Your task to perform on an android device: Open the map Image 0: 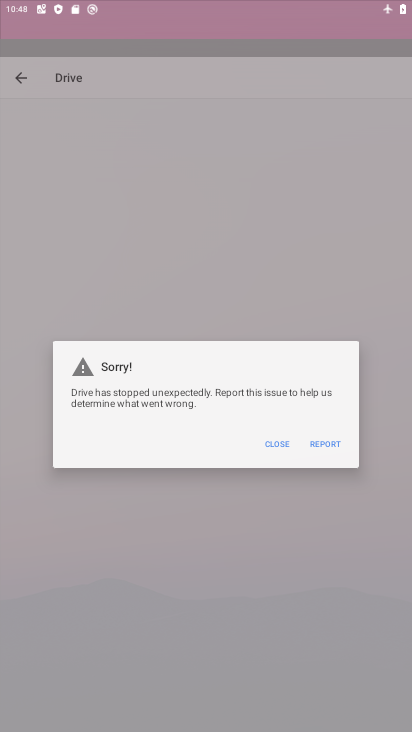
Step 0: click (366, 68)
Your task to perform on an android device: Open the map Image 1: 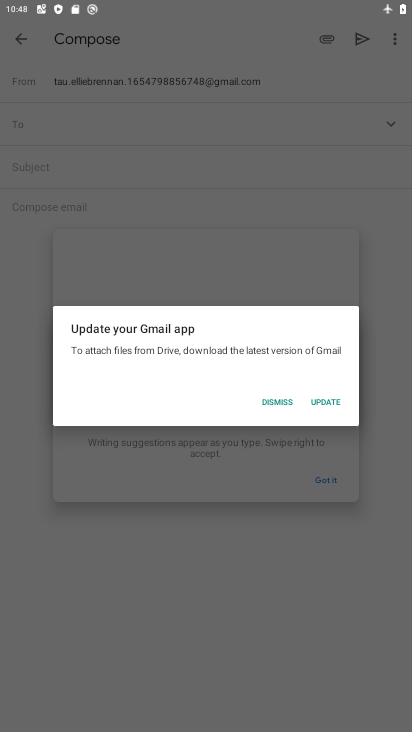
Step 1: press home button
Your task to perform on an android device: Open the map Image 2: 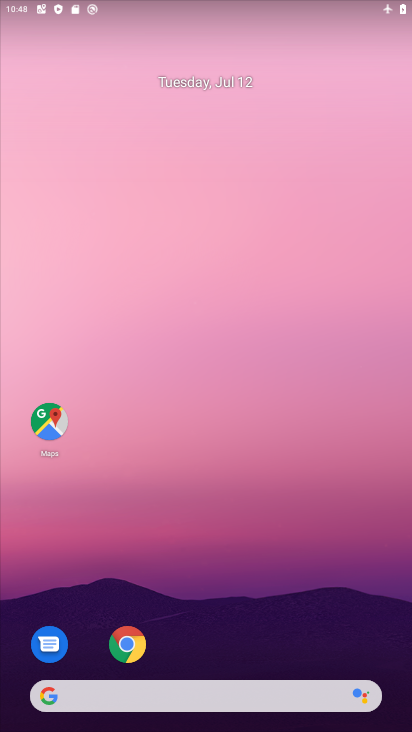
Step 2: drag from (339, 508) to (411, 96)
Your task to perform on an android device: Open the map Image 3: 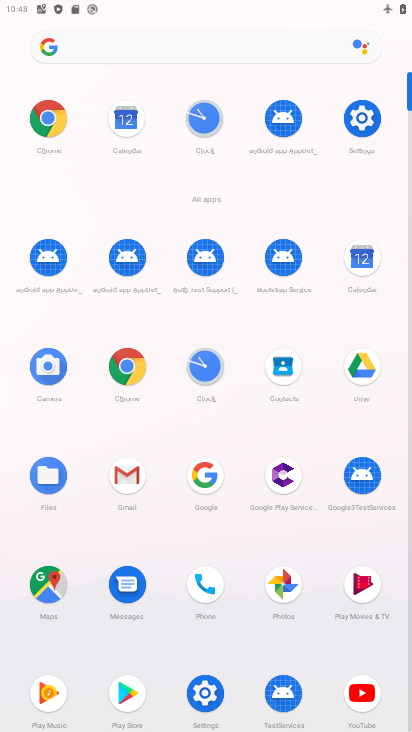
Step 3: click (42, 594)
Your task to perform on an android device: Open the map Image 4: 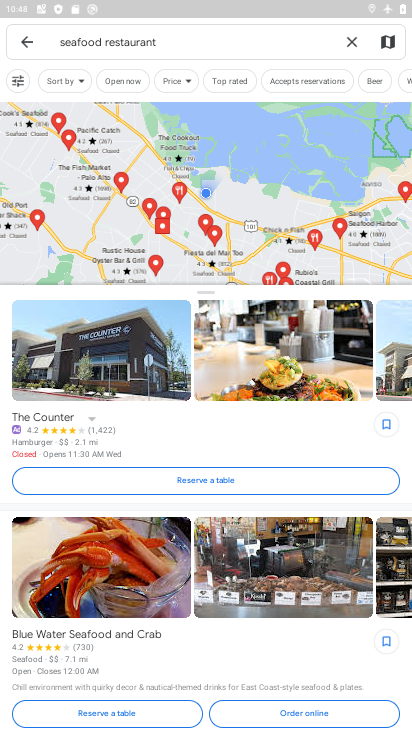
Step 4: task complete